Your task to perform on an android device: uninstall "Gboard" Image 0: 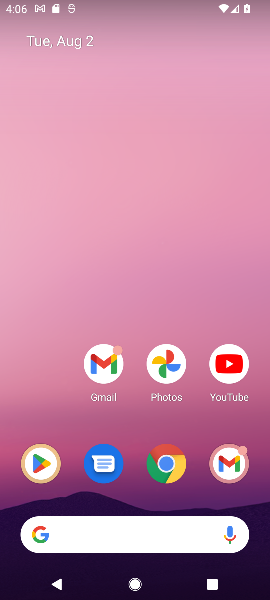
Step 0: press home button
Your task to perform on an android device: uninstall "Gboard" Image 1: 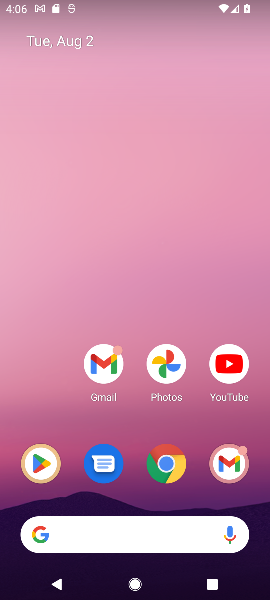
Step 1: click (35, 462)
Your task to perform on an android device: uninstall "Gboard" Image 2: 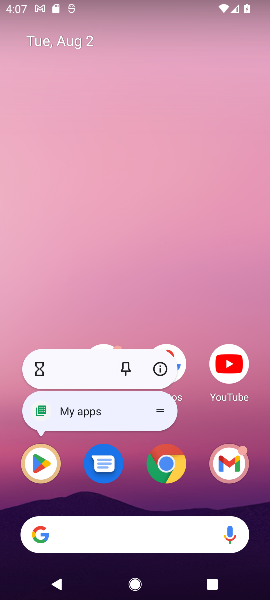
Step 2: click (38, 466)
Your task to perform on an android device: uninstall "Gboard" Image 3: 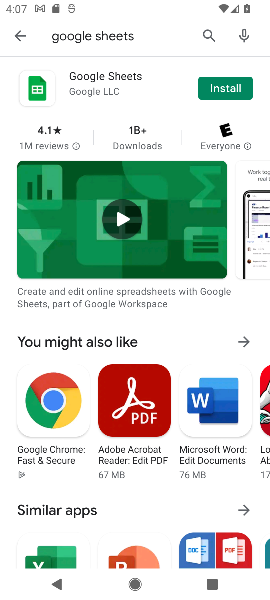
Step 3: click (205, 39)
Your task to perform on an android device: uninstall "Gboard" Image 4: 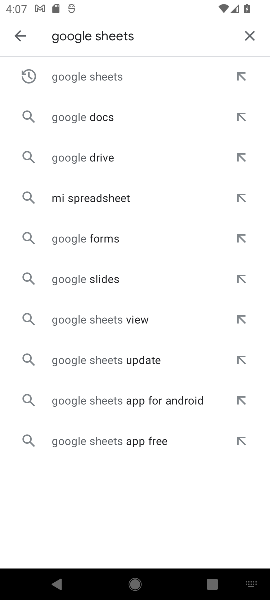
Step 4: click (246, 37)
Your task to perform on an android device: uninstall "Gboard" Image 5: 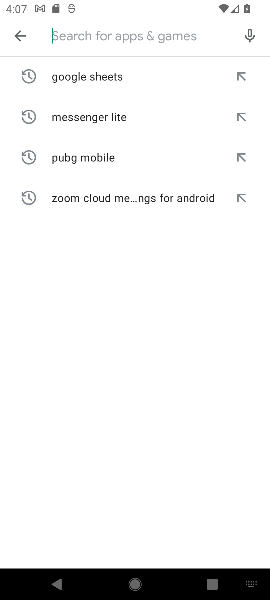
Step 5: type "Gboard"
Your task to perform on an android device: uninstall "Gboard" Image 6: 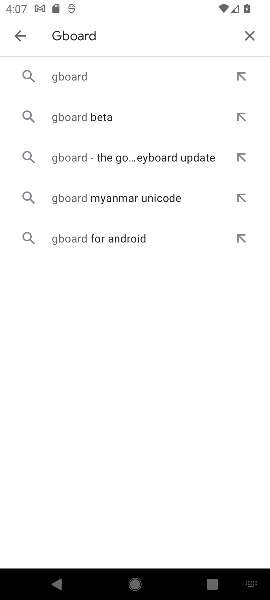
Step 6: click (79, 80)
Your task to perform on an android device: uninstall "Gboard" Image 7: 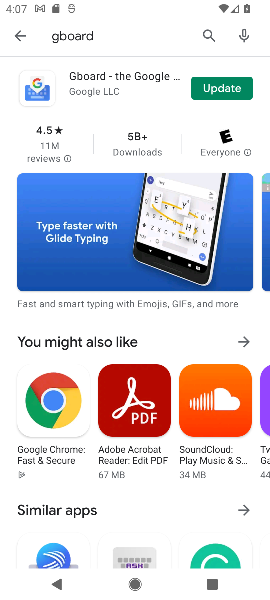
Step 7: click (79, 83)
Your task to perform on an android device: uninstall "Gboard" Image 8: 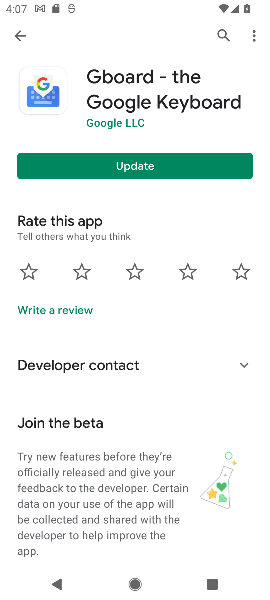
Step 8: task complete